Your task to perform on an android device: show emergency info Image 0: 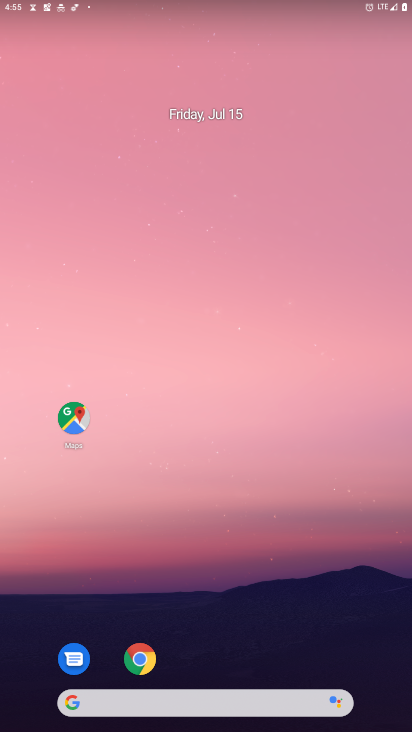
Step 0: drag from (142, 708) to (120, 50)
Your task to perform on an android device: show emergency info Image 1: 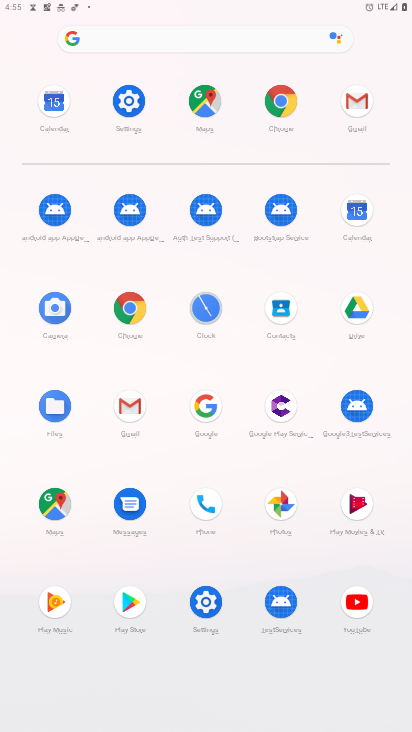
Step 1: click (132, 104)
Your task to perform on an android device: show emergency info Image 2: 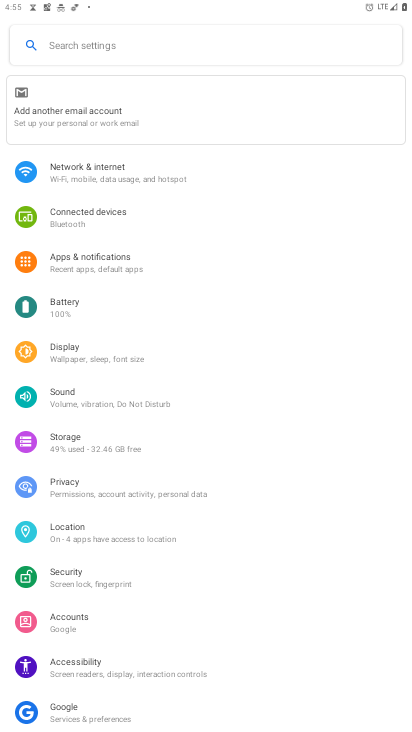
Step 2: drag from (163, 708) to (180, 340)
Your task to perform on an android device: show emergency info Image 3: 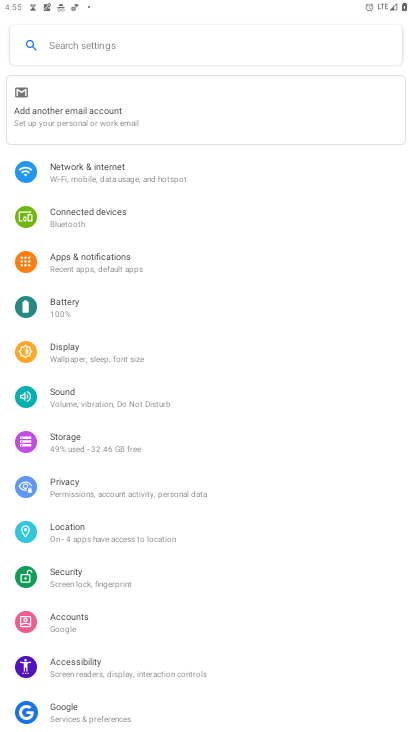
Step 3: click (119, 718)
Your task to perform on an android device: show emergency info Image 4: 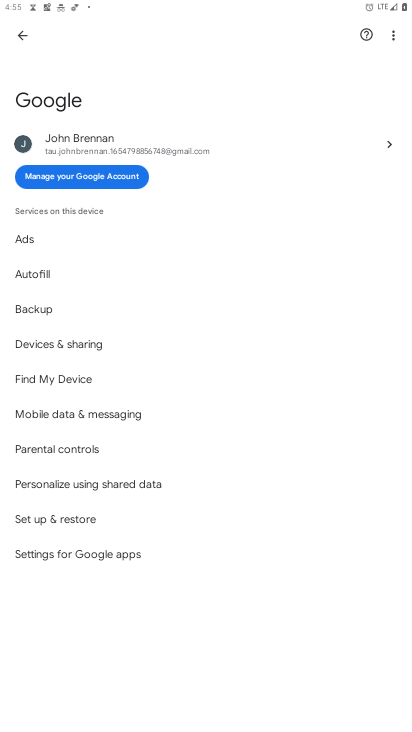
Step 4: press back button
Your task to perform on an android device: show emergency info Image 5: 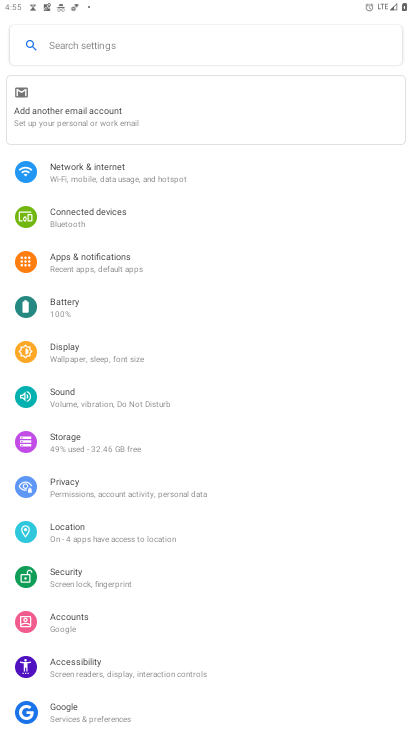
Step 5: drag from (118, 669) to (261, 112)
Your task to perform on an android device: show emergency info Image 6: 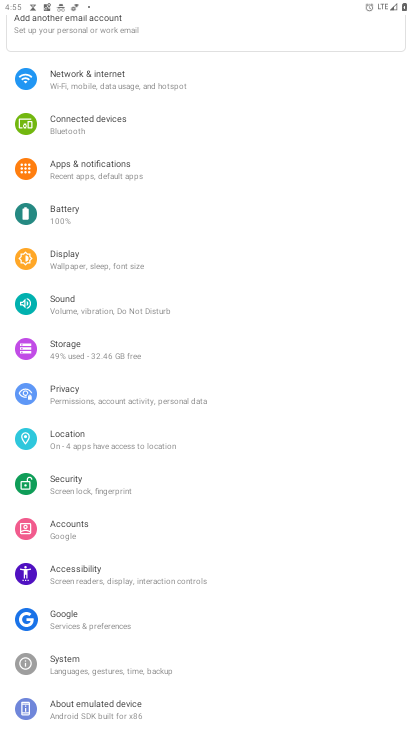
Step 6: click (116, 705)
Your task to perform on an android device: show emergency info Image 7: 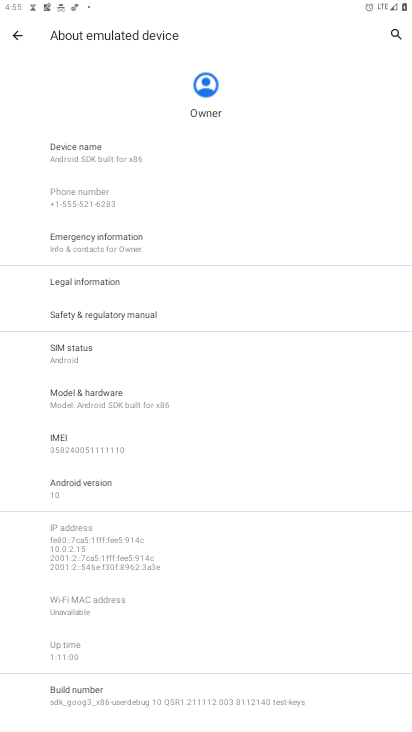
Step 7: click (138, 246)
Your task to perform on an android device: show emergency info Image 8: 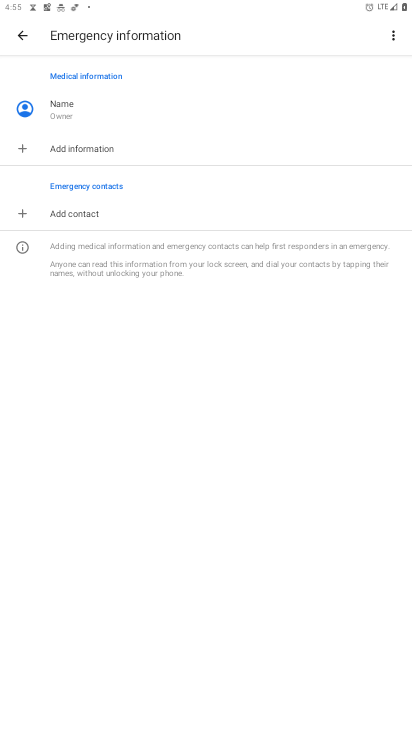
Step 8: task complete